Your task to perform on an android device: install app "Facebook Messenger" Image 0: 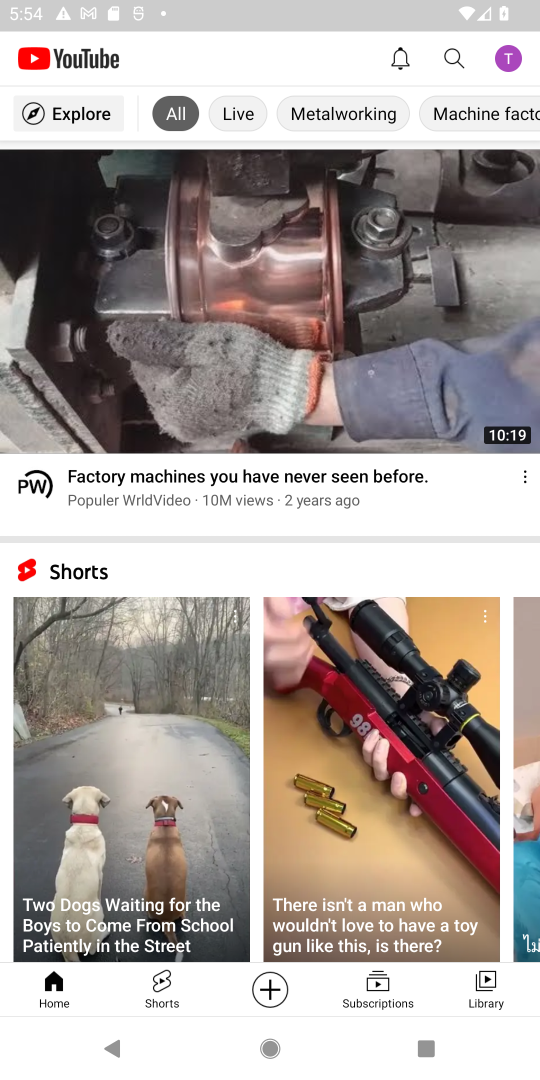
Step 0: press home button
Your task to perform on an android device: install app "Facebook Messenger" Image 1: 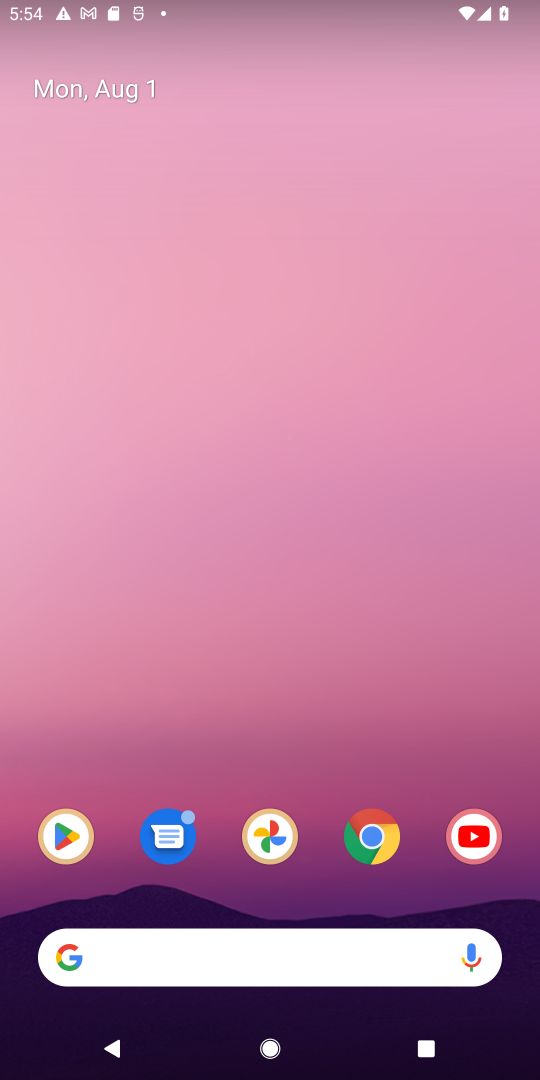
Step 1: click (69, 830)
Your task to perform on an android device: install app "Facebook Messenger" Image 2: 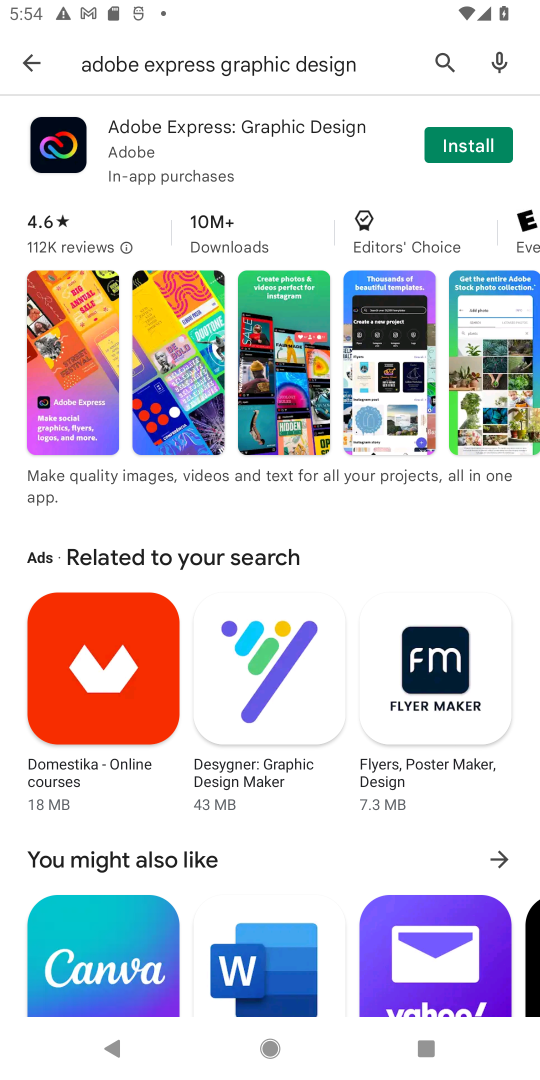
Step 2: click (443, 55)
Your task to perform on an android device: install app "Facebook Messenger" Image 3: 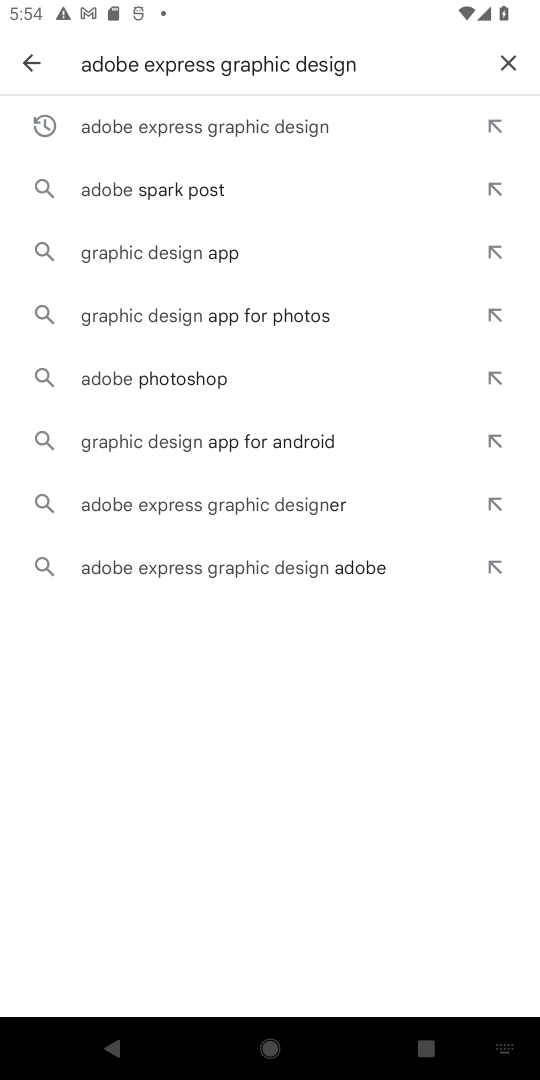
Step 3: click (507, 52)
Your task to perform on an android device: install app "Facebook Messenger" Image 4: 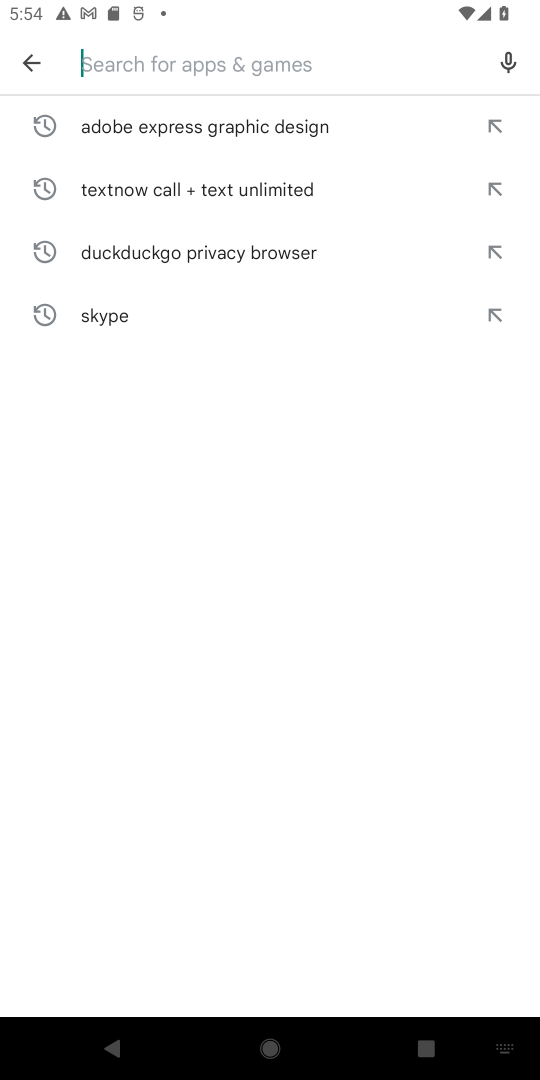
Step 4: type "Facebook Messenger"
Your task to perform on an android device: install app "Facebook Messenger" Image 5: 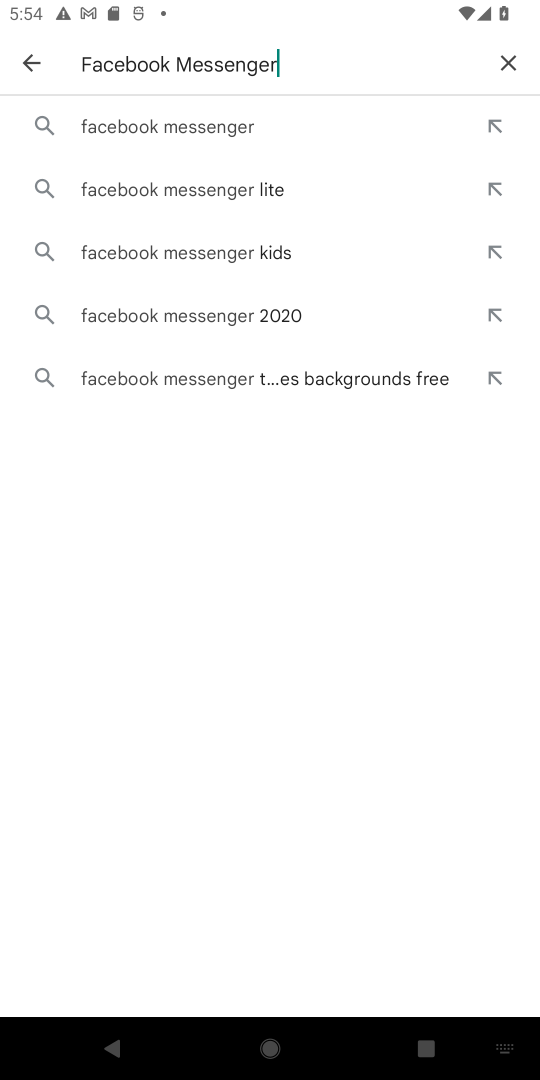
Step 5: click (229, 129)
Your task to perform on an android device: install app "Facebook Messenger" Image 6: 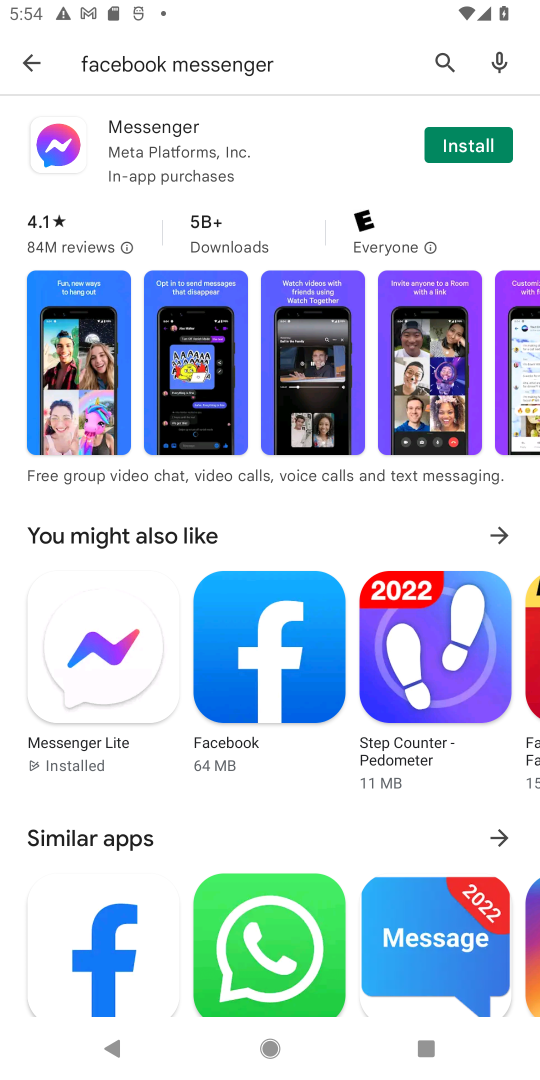
Step 6: click (460, 140)
Your task to perform on an android device: install app "Facebook Messenger" Image 7: 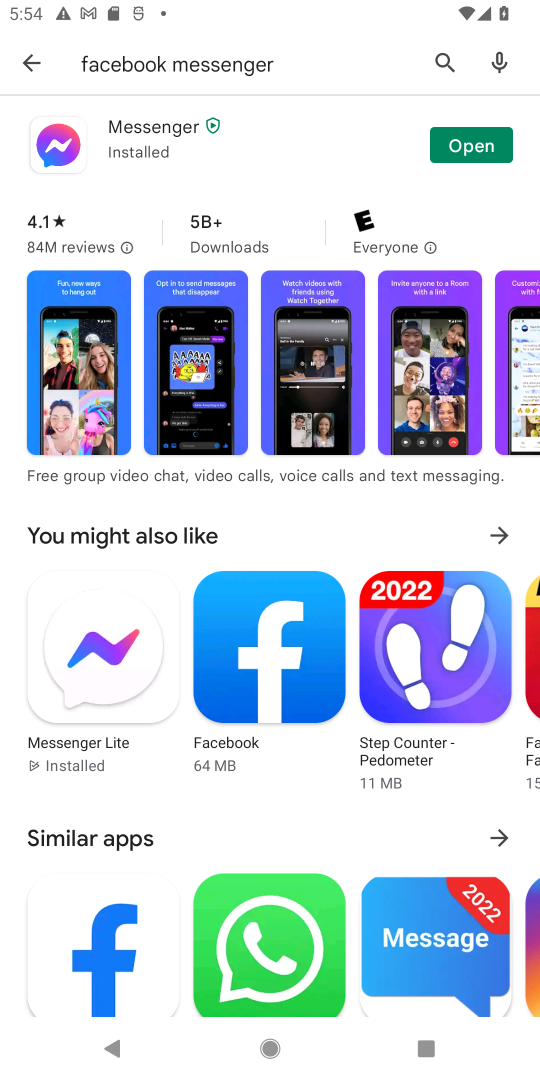
Step 7: task complete